Your task to perform on an android device: Go to Maps Image 0: 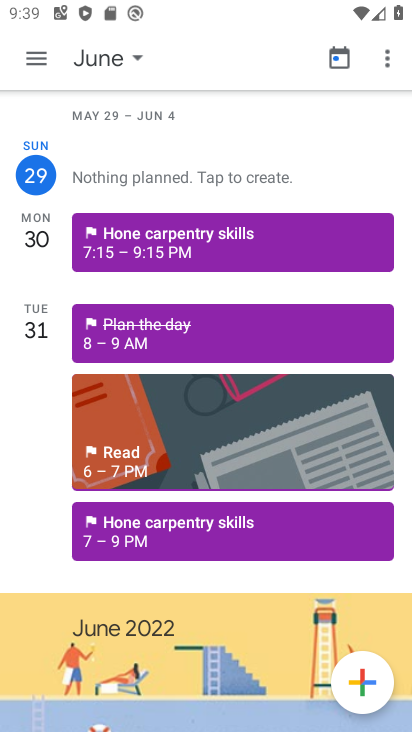
Step 0: press home button
Your task to perform on an android device: Go to Maps Image 1: 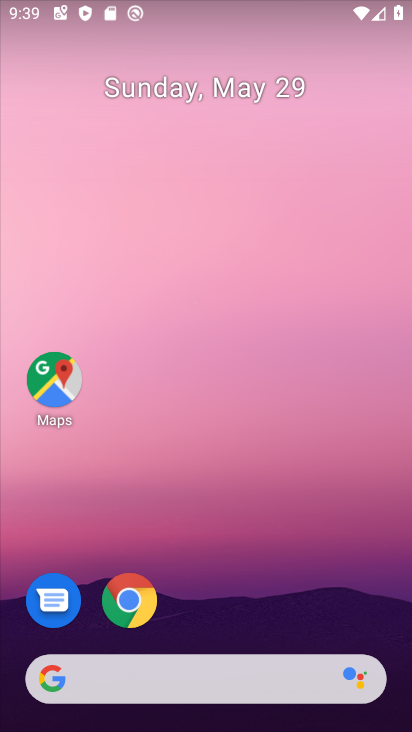
Step 1: drag from (216, 723) to (239, 214)
Your task to perform on an android device: Go to Maps Image 2: 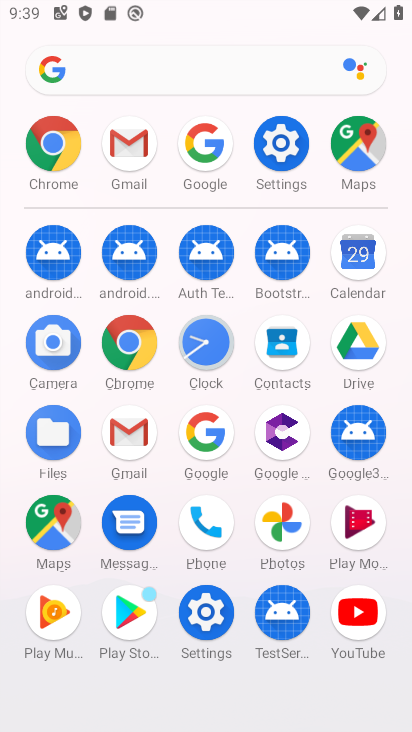
Step 2: click (59, 519)
Your task to perform on an android device: Go to Maps Image 3: 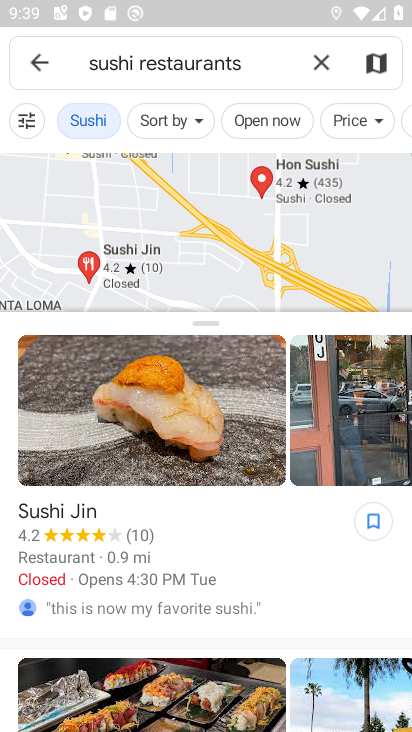
Step 3: task complete